Your task to perform on an android device: Open the web browser Image 0: 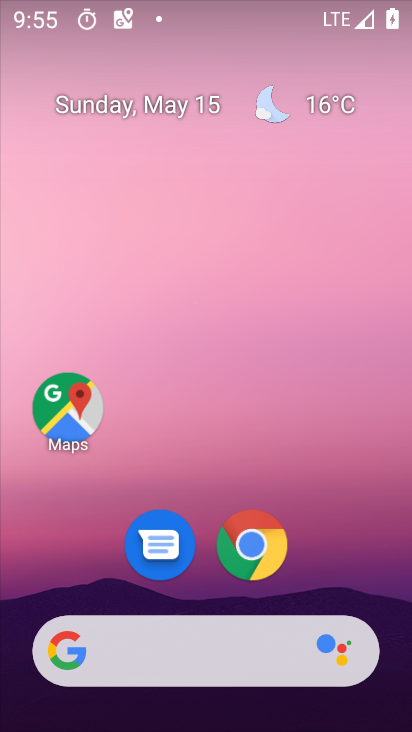
Step 0: click (252, 541)
Your task to perform on an android device: Open the web browser Image 1: 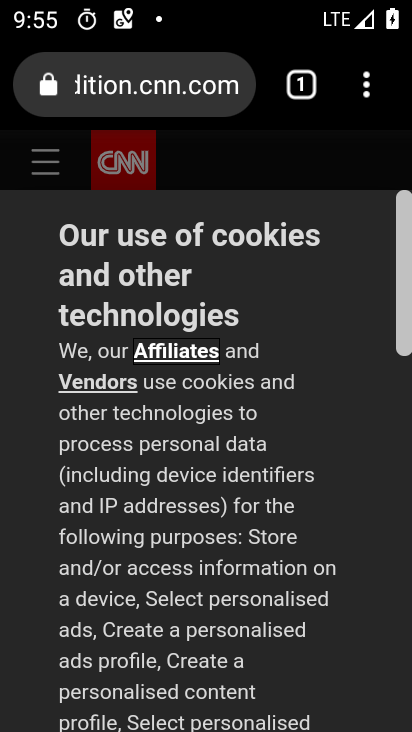
Step 1: task complete